Your task to perform on an android device: Open Amazon Image 0: 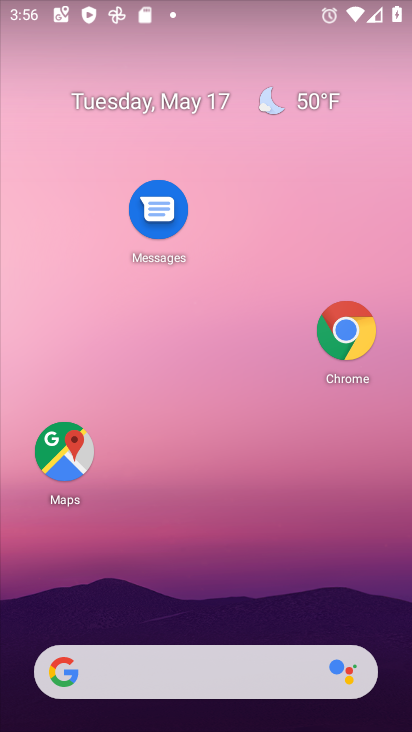
Step 0: drag from (229, 471) to (313, 12)
Your task to perform on an android device: Open Amazon Image 1: 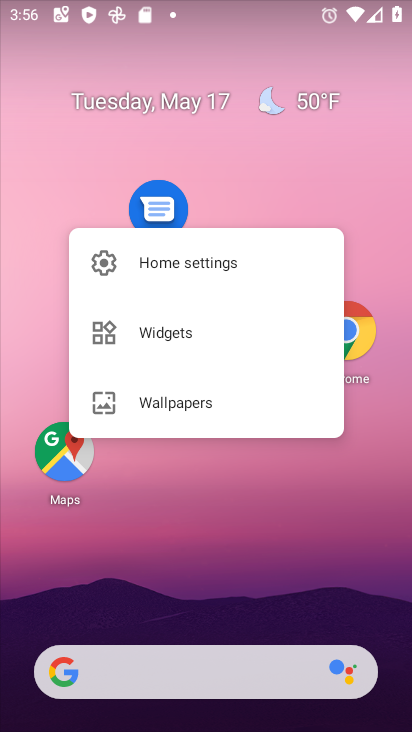
Step 1: click (364, 304)
Your task to perform on an android device: Open Amazon Image 2: 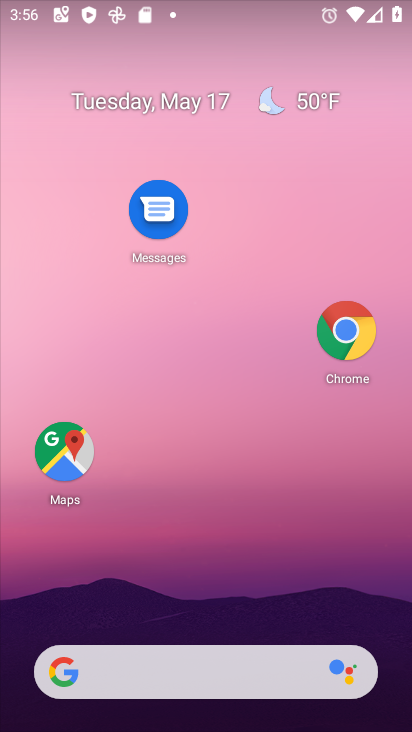
Step 2: click (355, 320)
Your task to perform on an android device: Open Amazon Image 3: 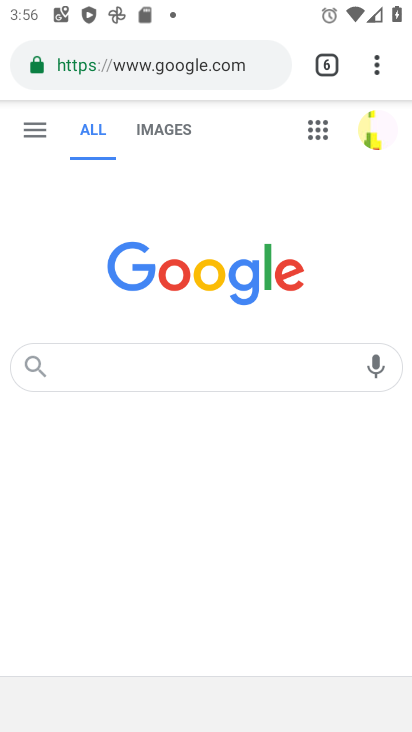
Step 3: click (134, 65)
Your task to perform on an android device: Open Amazon Image 4: 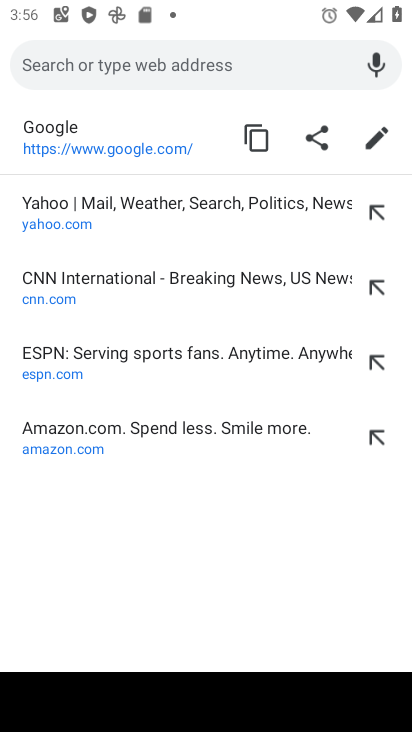
Step 4: click (138, 425)
Your task to perform on an android device: Open Amazon Image 5: 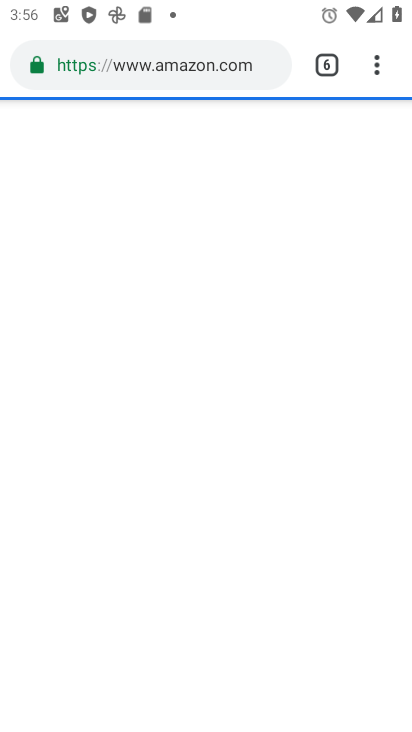
Step 5: task complete